Your task to perform on an android device: find photos in the google photos app Image 0: 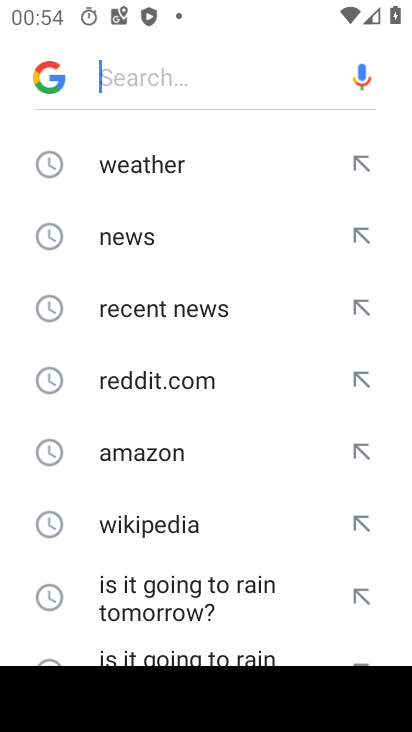
Step 0: press home button
Your task to perform on an android device: find photos in the google photos app Image 1: 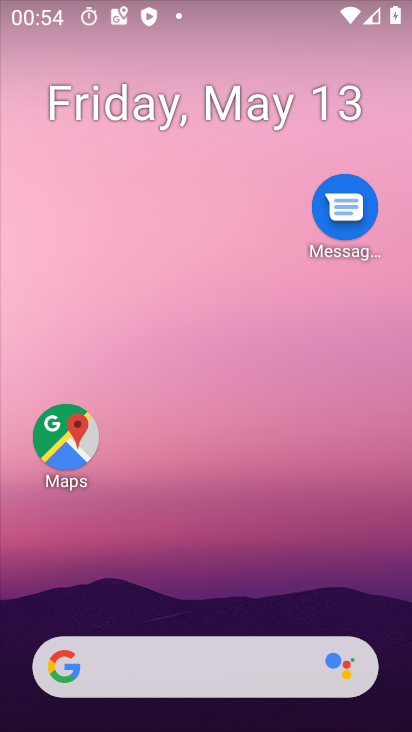
Step 1: drag from (291, 573) to (226, 106)
Your task to perform on an android device: find photos in the google photos app Image 2: 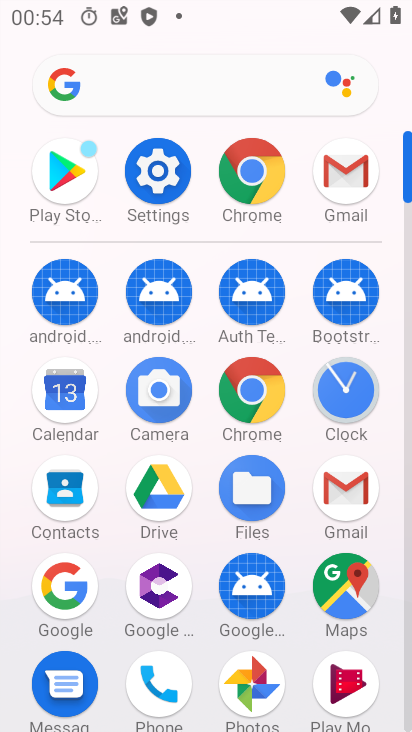
Step 2: click (253, 675)
Your task to perform on an android device: find photos in the google photos app Image 3: 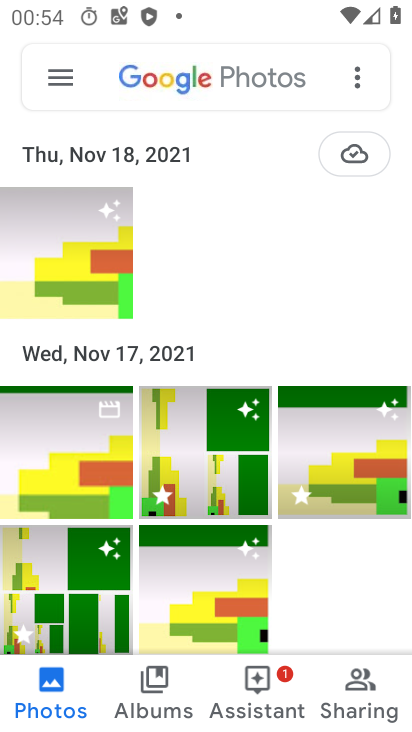
Step 3: task complete